Your task to perform on an android device: Open calendar and show me the third week of next month Image 0: 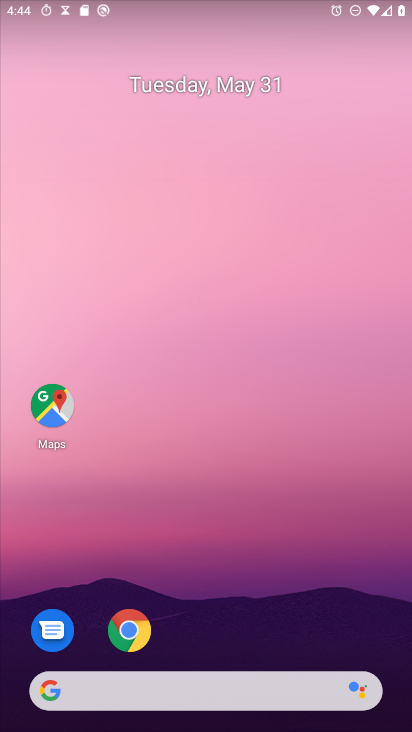
Step 0: drag from (305, 659) to (316, 11)
Your task to perform on an android device: Open calendar and show me the third week of next month Image 1: 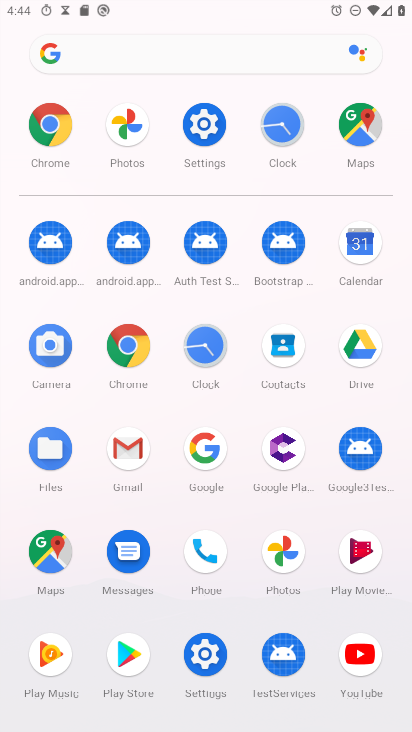
Step 1: click (360, 250)
Your task to perform on an android device: Open calendar and show me the third week of next month Image 2: 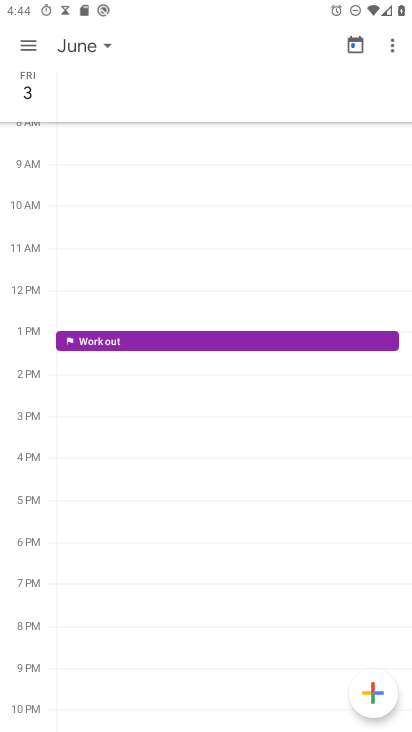
Step 2: click (109, 42)
Your task to perform on an android device: Open calendar and show me the third week of next month Image 3: 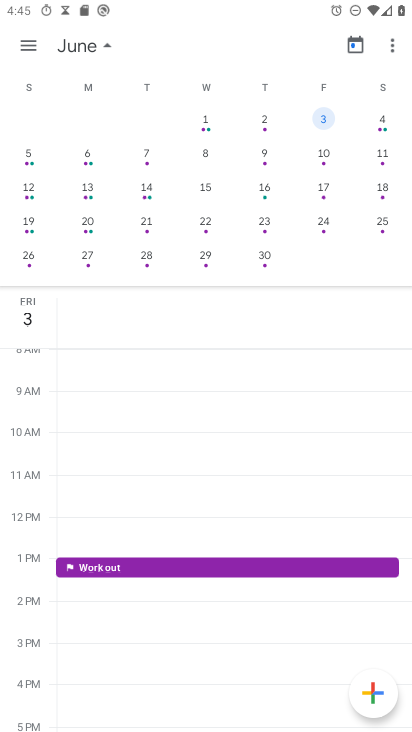
Step 3: click (254, 185)
Your task to perform on an android device: Open calendar and show me the third week of next month Image 4: 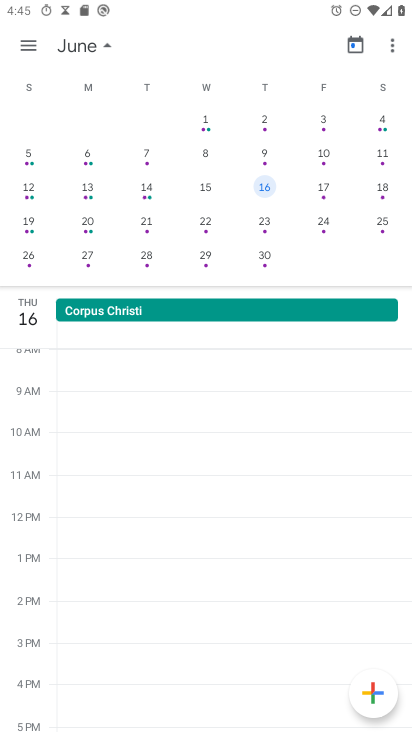
Step 4: task complete